Your task to perform on an android device: Open settings on Google Maps Image 0: 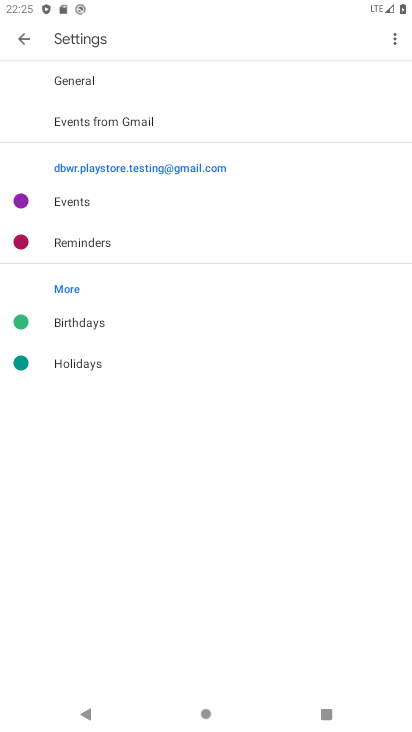
Step 0: press home button
Your task to perform on an android device: Open settings on Google Maps Image 1: 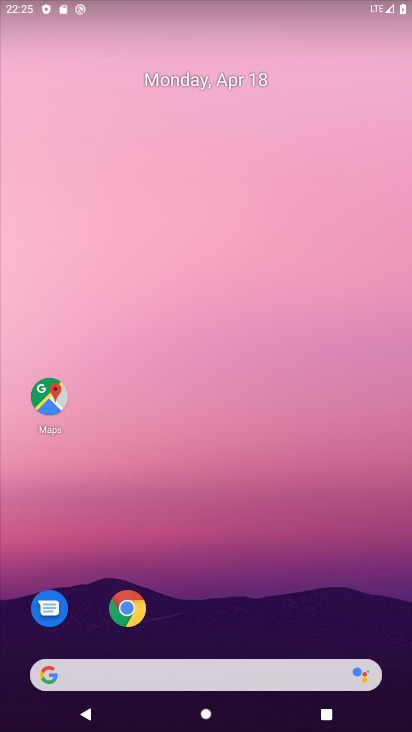
Step 1: click (38, 391)
Your task to perform on an android device: Open settings on Google Maps Image 2: 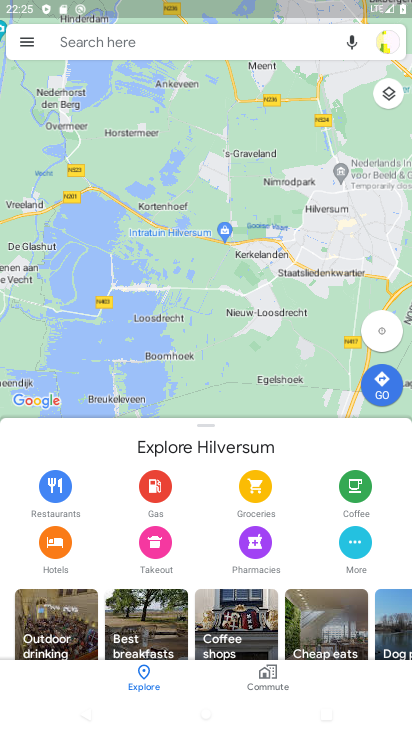
Step 2: click (21, 44)
Your task to perform on an android device: Open settings on Google Maps Image 3: 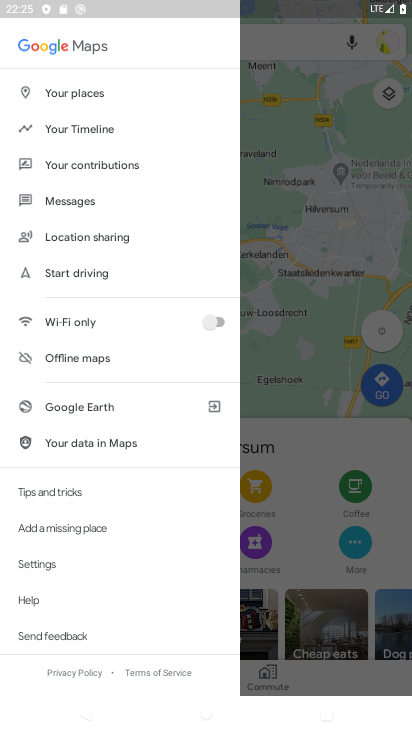
Step 3: click (44, 559)
Your task to perform on an android device: Open settings on Google Maps Image 4: 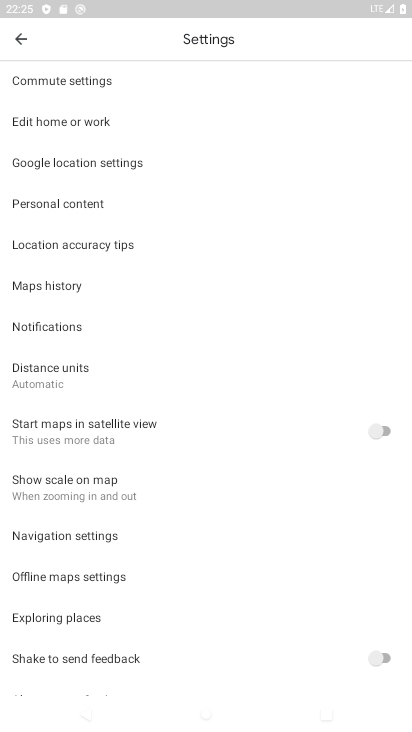
Step 4: task complete